Your task to perform on an android device: turn on location history Image 0: 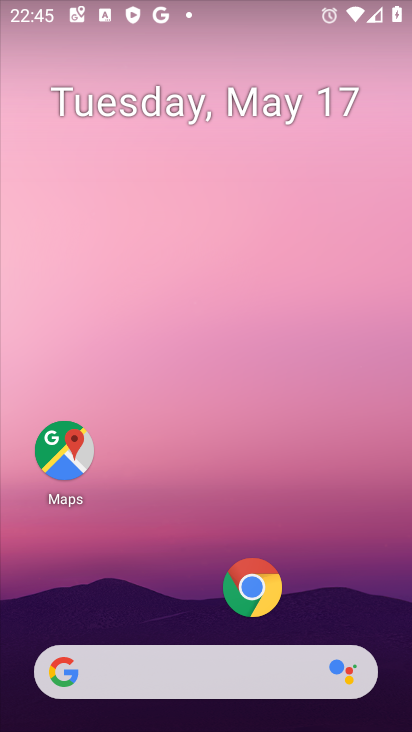
Step 0: drag from (175, 493) to (196, 234)
Your task to perform on an android device: turn on location history Image 1: 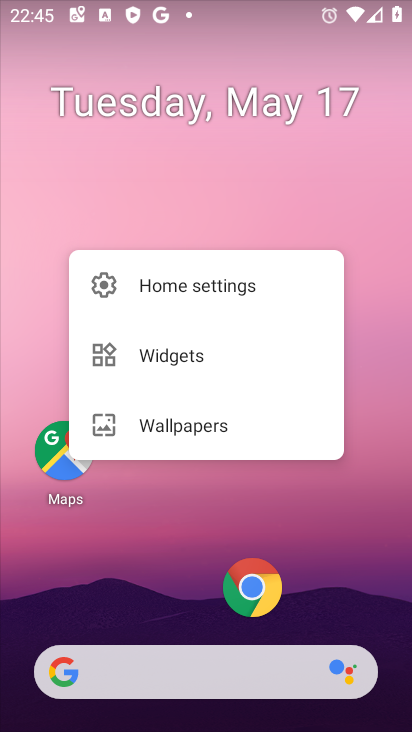
Step 1: click (180, 576)
Your task to perform on an android device: turn on location history Image 2: 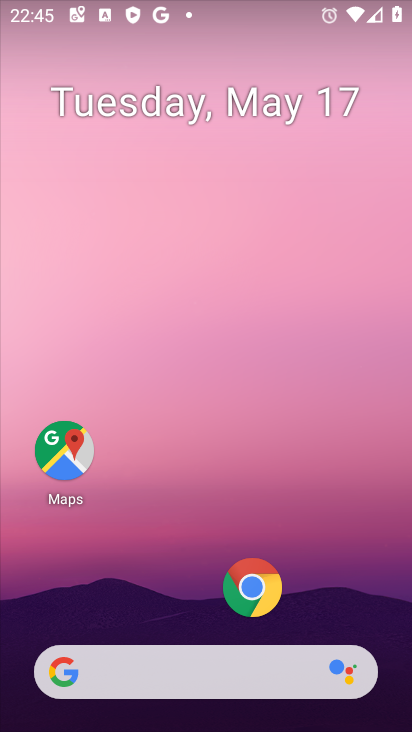
Step 2: drag from (178, 603) to (155, 104)
Your task to perform on an android device: turn on location history Image 3: 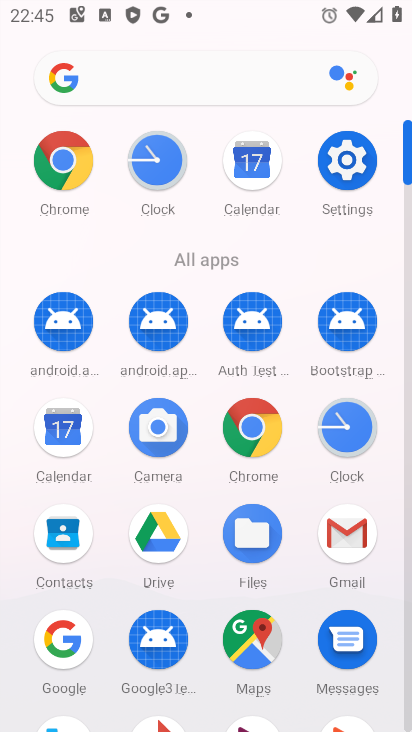
Step 3: click (350, 165)
Your task to perform on an android device: turn on location history Image 4: 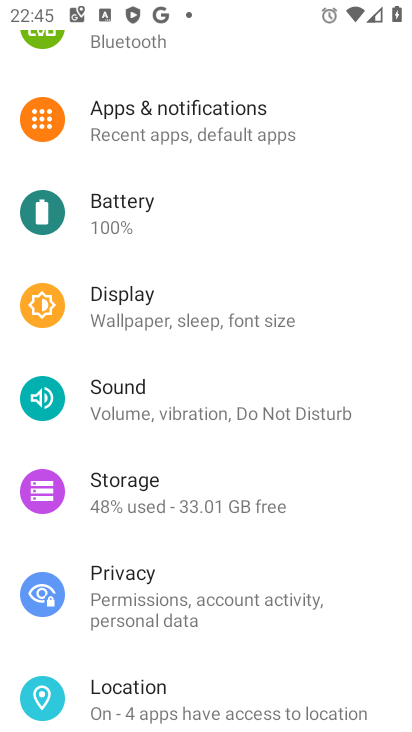
Step 4: click (129, 706)
Your task to perform on an android device: turn on location history Image 5: 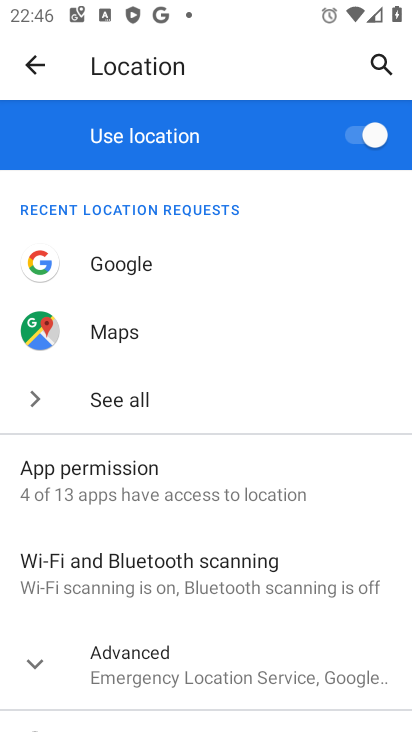
Step 5: click (116, 650)
Your task to perform on an android device: turn on location history Image 6: 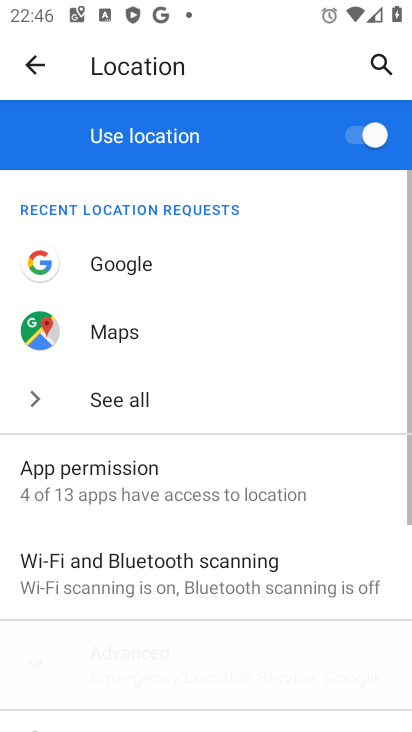
Step 6: task complete